Your task to perform on an android device: change your default location settings in chrome Image 0: 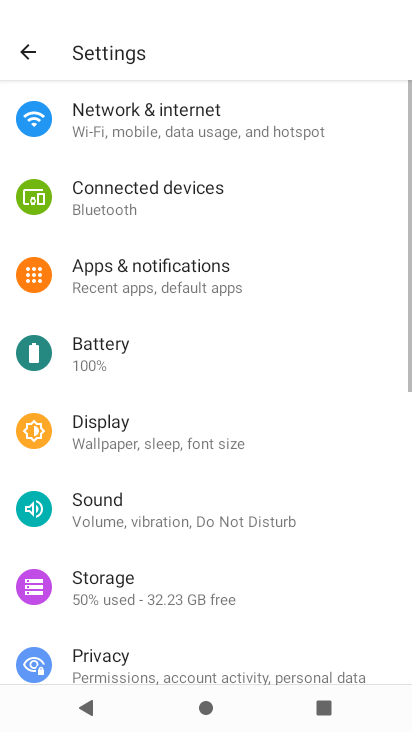
Step 0: press home button
Your task to perform on an android device: change your default location settings in chrome Image 1: 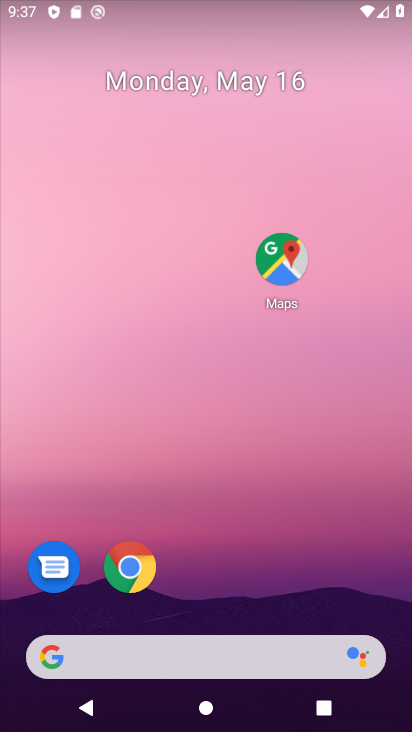
Step 1: click (131, 566)
Your task to perform on an android device: change your default location settings in chrome Image 2: 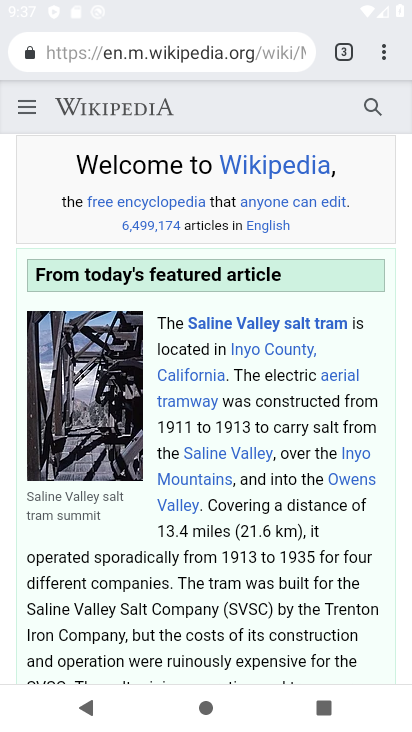
Step 2: click (379, 50)
Your task to perform on an android device: change your default location settings in chrome Image 3: 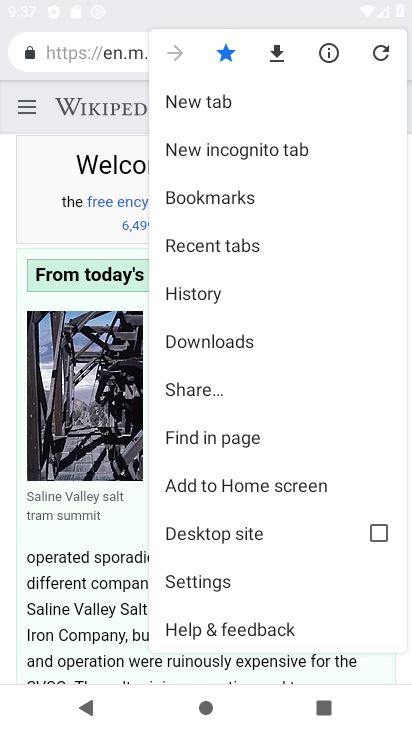
Step 3: click (221, 583)
Your task to perform on an android device: change your default location settings in chrome Image 4: 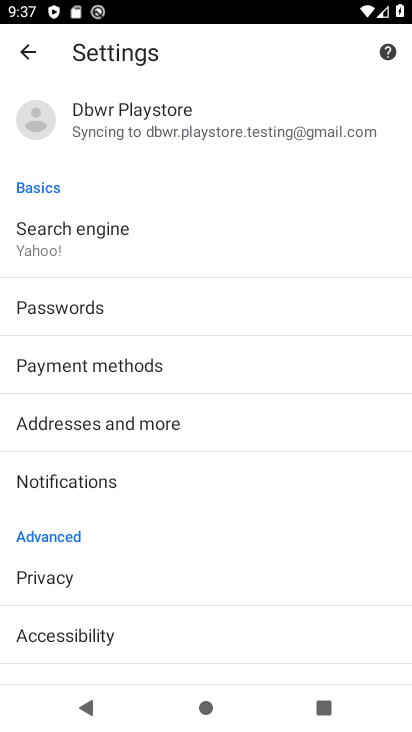
Step 4: click (121, 223)
Your task to perform on an android device: change your default location settings in chrome Image 5: 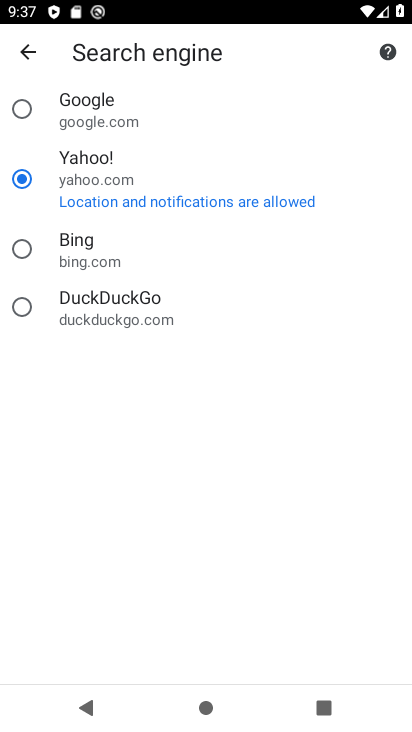
Step 5: click (24, 115)
Your task to perform on an android device: change your default location settings in chrome Image 6: 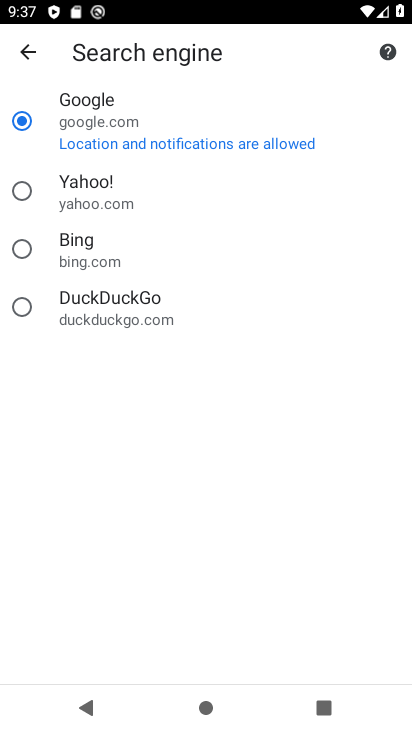
Step 6: task complete